Your task to perform on an android device: Set the phone to "Do not disturb". Image 0: 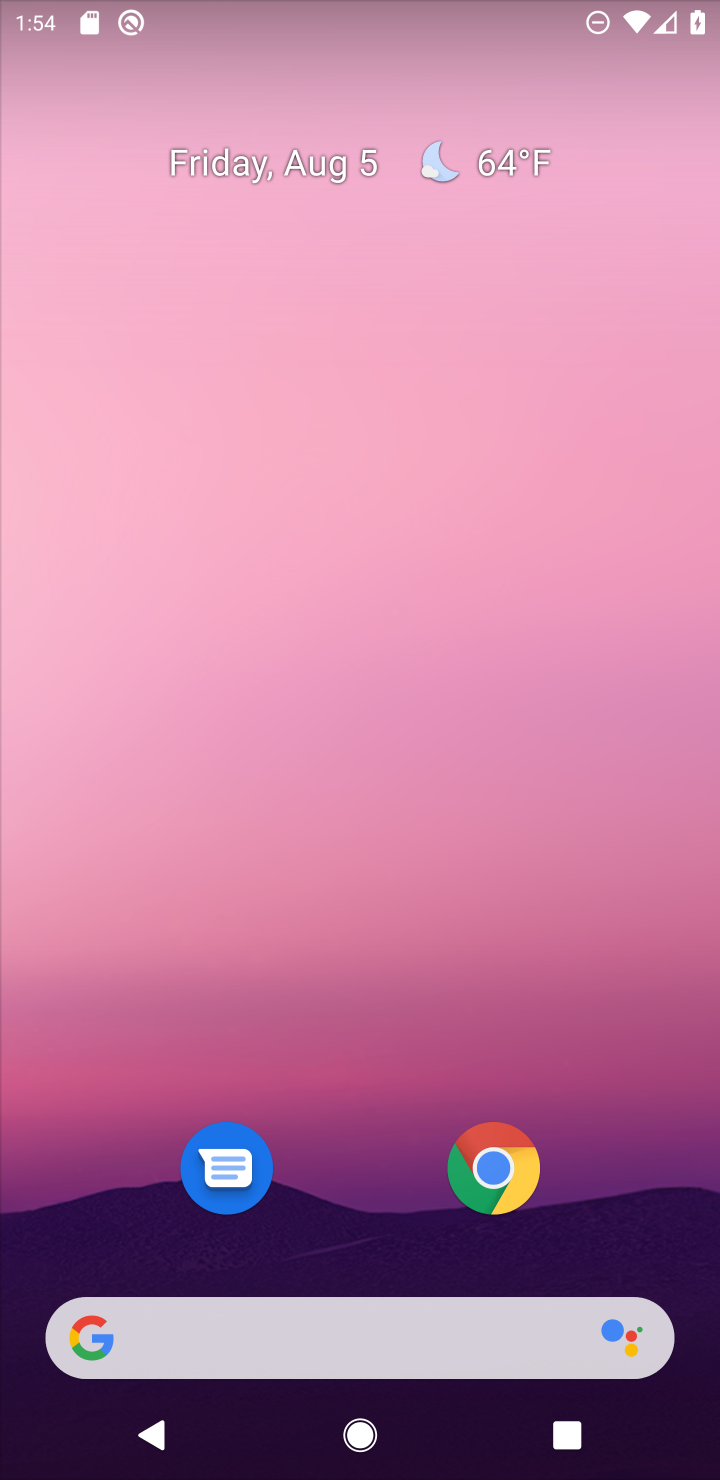
Step 0: drag from (349, 46) to (494, 1011)
Your task to perform on an android device: Set the phone to "Do not disturb". Image 1: 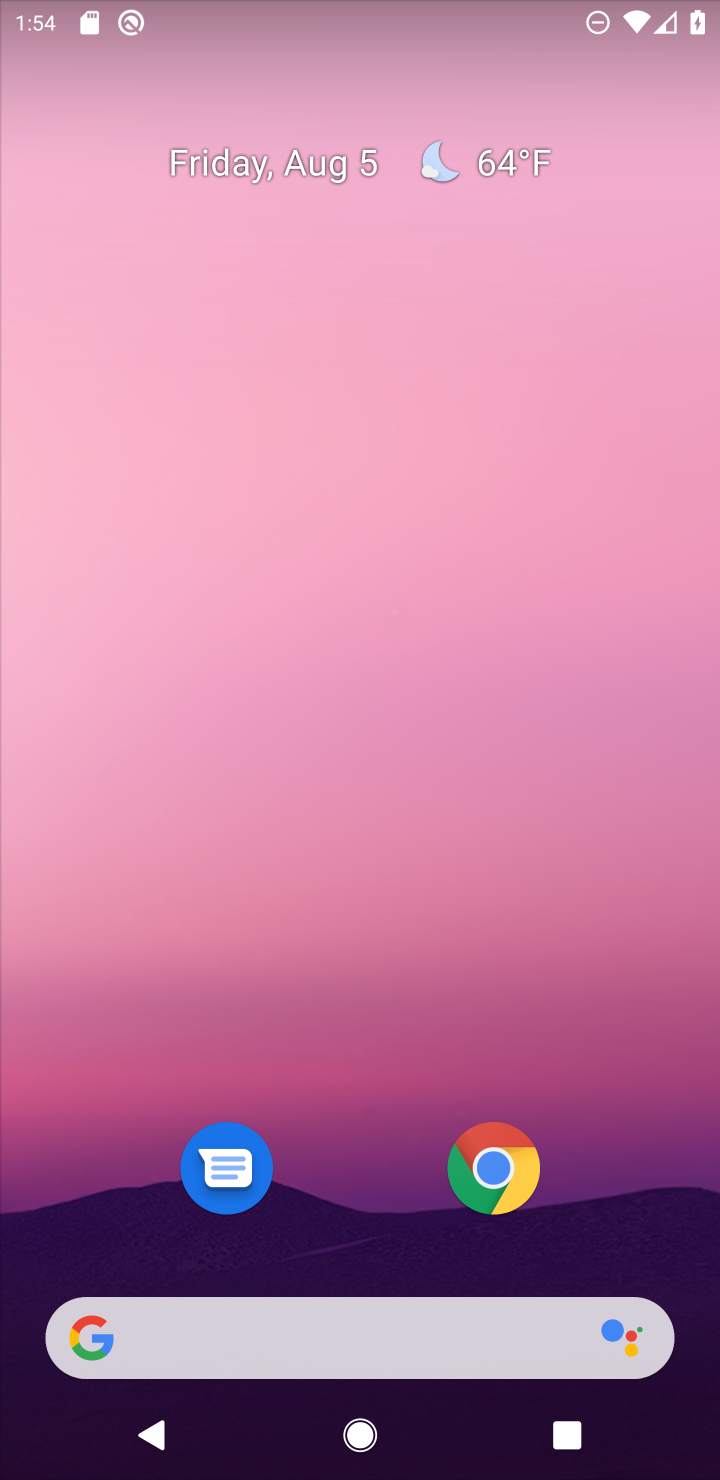
Step 1: task complete